Your task to perform on an android device: Show me popular games on the Play Store Image 0: 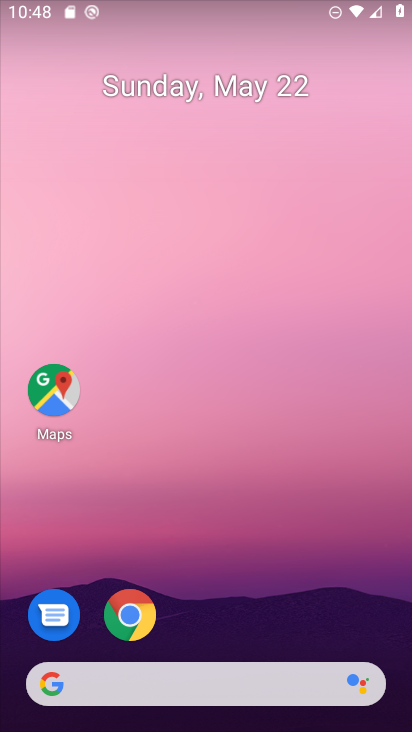
Step 0: drag from (277, 609) to (294, 133)
Your task to perform on an android device: Show me popular games on the Play Store Image 1: 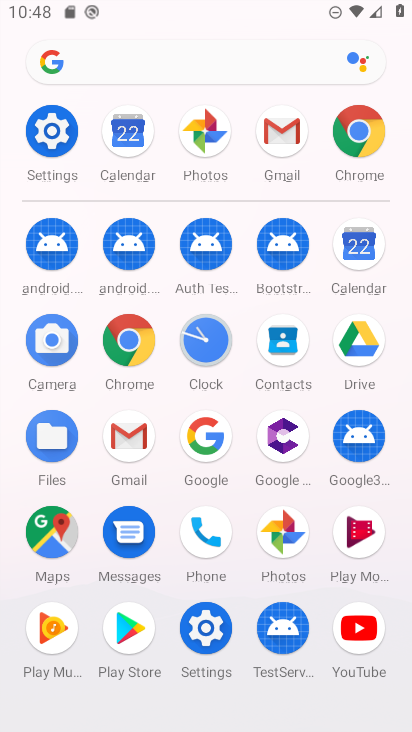
Step 1: click (127, 632)
Your task to perform on an android device: Show me popular games on the Play Store Image 2: 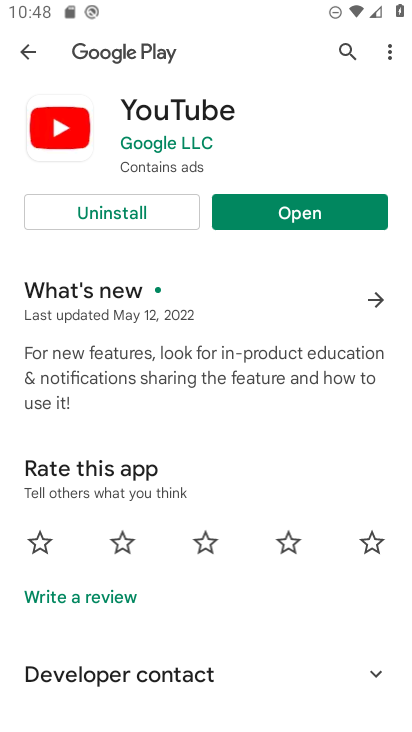
Step 2: click (27, 50)
Your task to perform on an android device: Show me popular games on the Play Store Image 3: 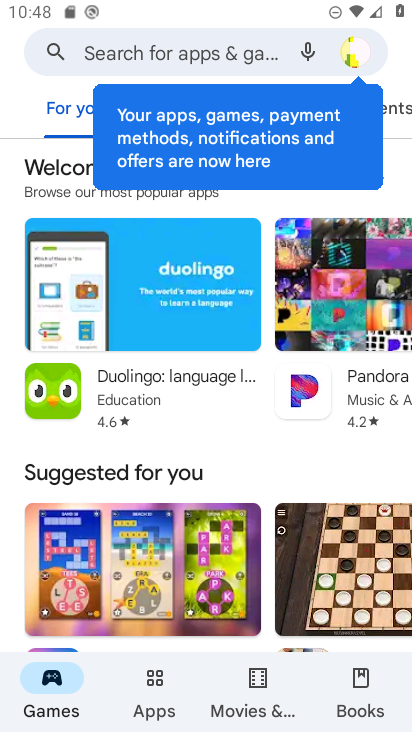
Step 3: task complete